Your task to perform on an android device: Go to settings Image 0: 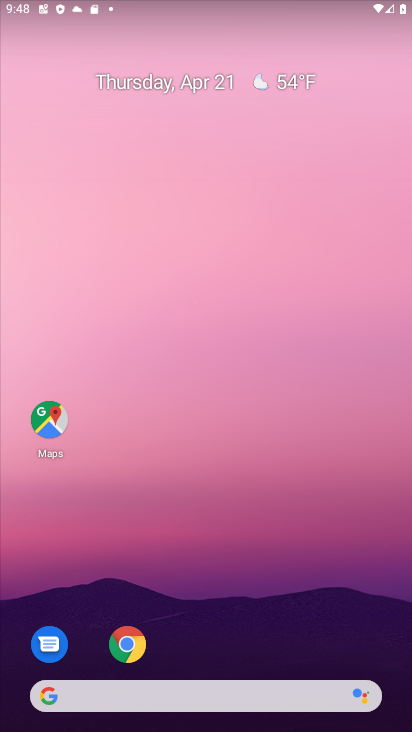
Step 0: drag from (207, 605) to (154, 88)
Your task to perform on an android device: Go to settings Image 1: 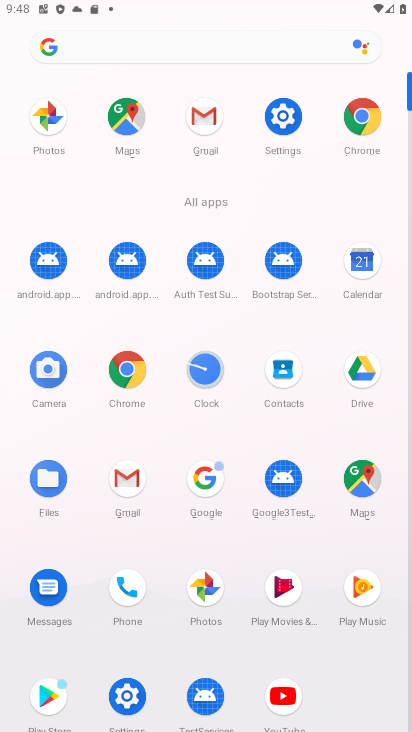
Step 1: click (280, 113)
Your task to perform on an android device: Go to settings Image 2: 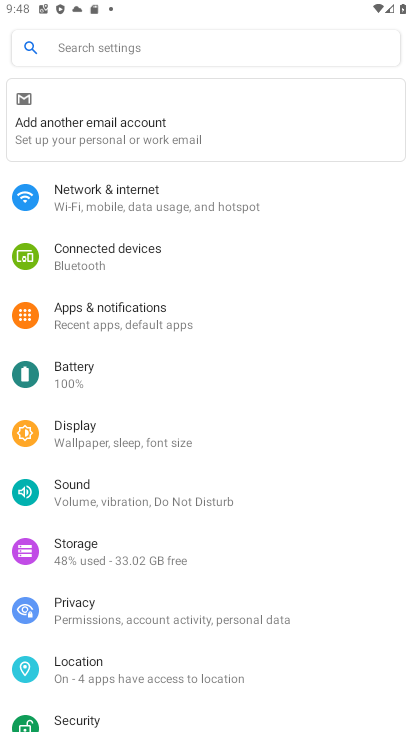
Step 2: task complete